Your task to perform on an android device: Open Reddit.com Image 0: 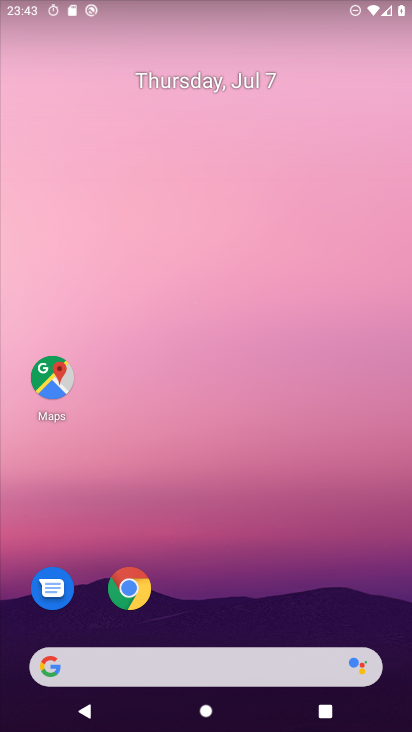
Step 0: drag from (296, 595) to (267, 140)
Your task to perform on an android device: Open Reddit.com Image 1: 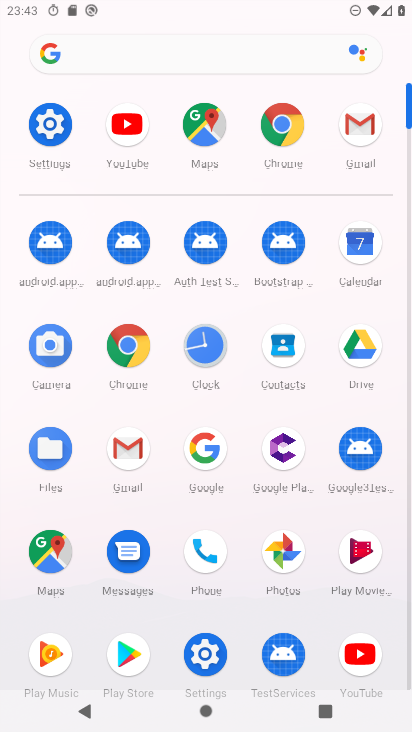
Step 1: click (281, 126)
Your task to perform on an android device: Open Reddit.com Image 2: 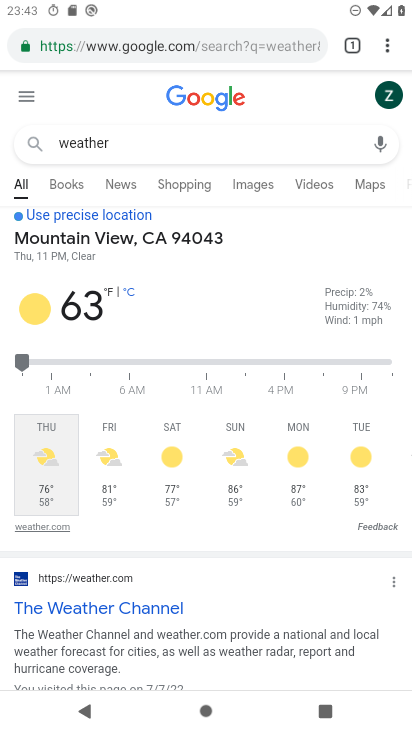
Step 2: click (169, 41)
Your task to perform on an android device: Open Reddit.com Image 3: 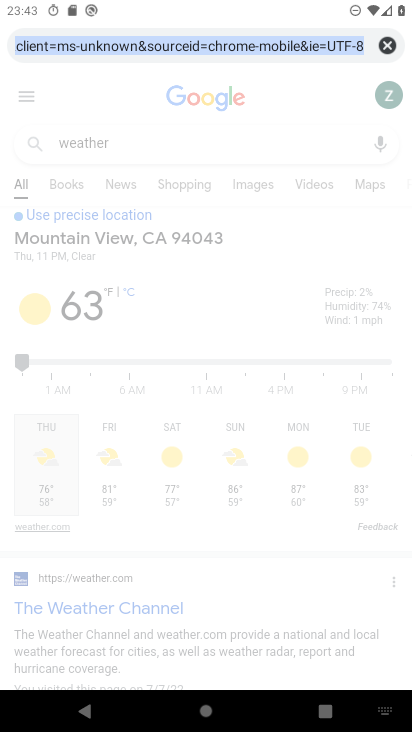
Step 3: click (387, 38)
Your task to perform on an android device: Open Reddit.com Image 4: 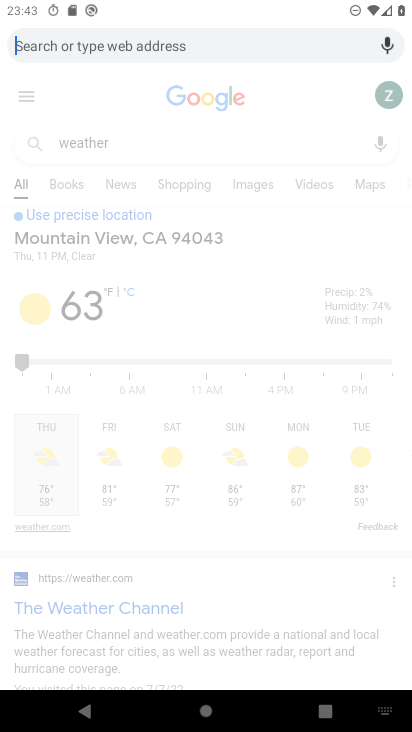
Step 4: type "reddit.com"
Your task to perform on an android device: Open Reddit.com Image 5: 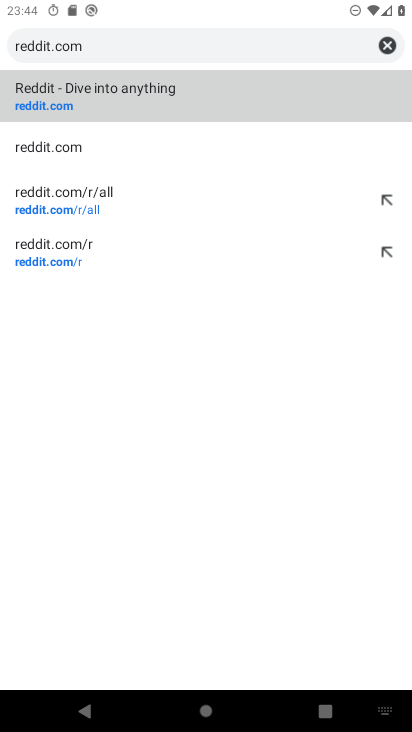
Step 5: click (62, 103)
Your task to perform on an android device: Open Reddit.com Image 6: 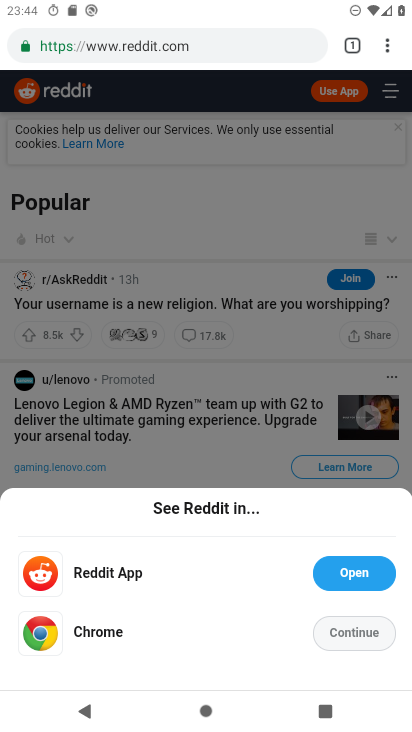
Step 6: task complete